Your task to perform on an android device: Search for Mexican restaurants on Maps Image 0: 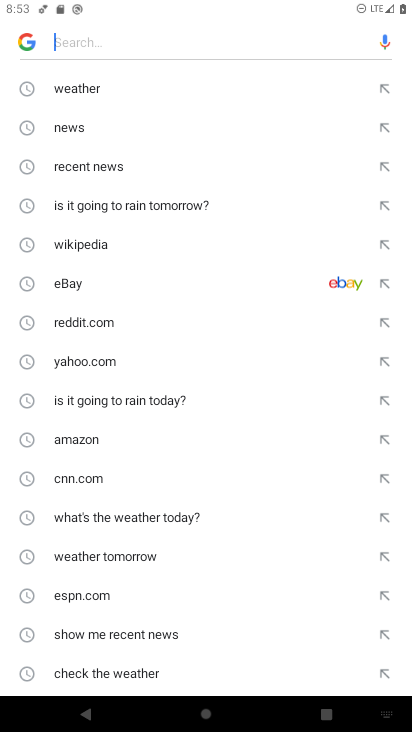
Step 0: press home button
Your task to perform on an android device: Search for Mexican restaurants on Maps Image 1: 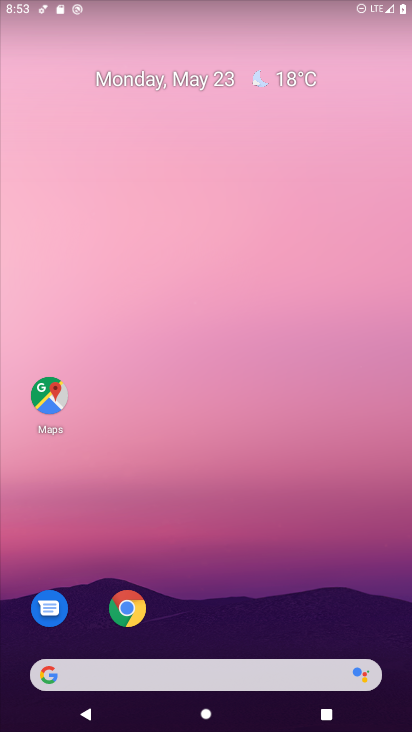
Step 1: drag from (223, 726) to (219, 32)
Your task to perform on an android device: Search for Mexican restaurants on Maps Image 2: 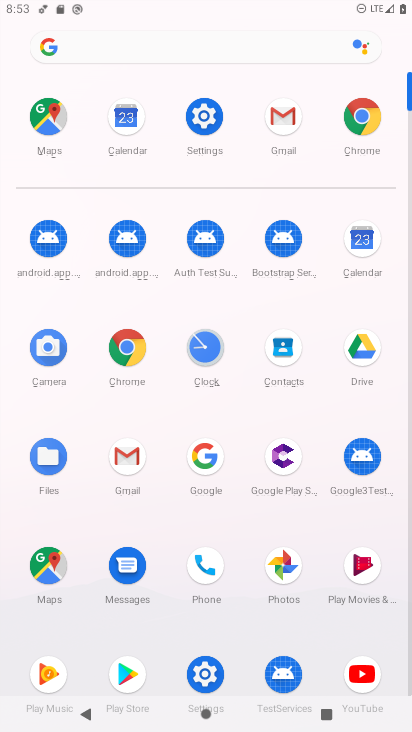
Step 2: click (45, 565)
Your task to perform on an android device: Search for Mexican restaurants on Maps Image 3: 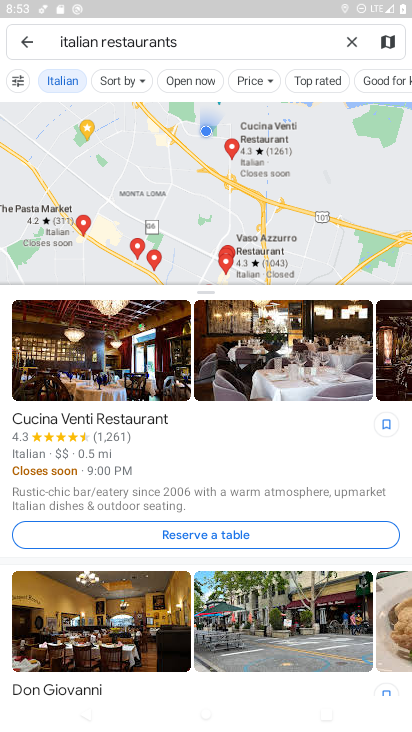
Step 3: click (351, 39)
Your task to perform on an android device: Search for Mexican restaurants on Maps Image 4: 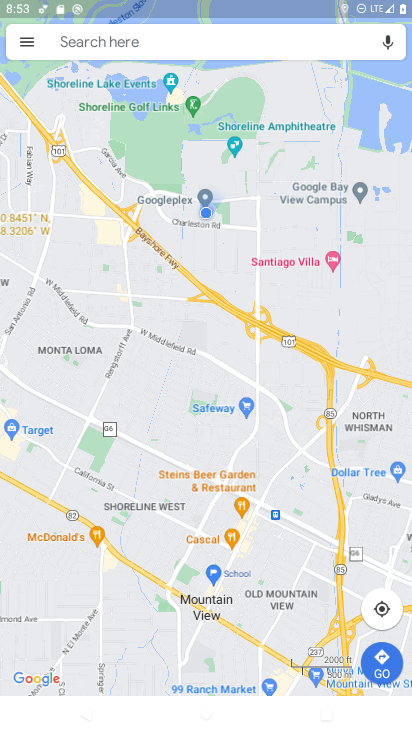
Step 4: click (146, 48)
Your task to perform on an android device: Search for Mexican restaurants on Maps Image 5: 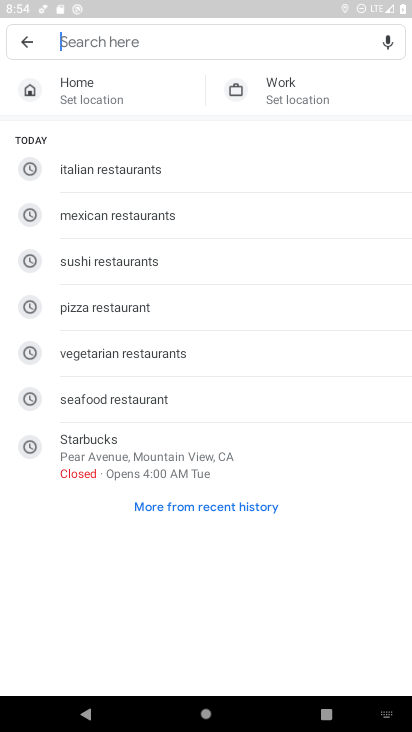
Step 5: type "Mexican restaurants"
Your task to perform on an android device: Search for Mexican restaurants on Maps Image 6: 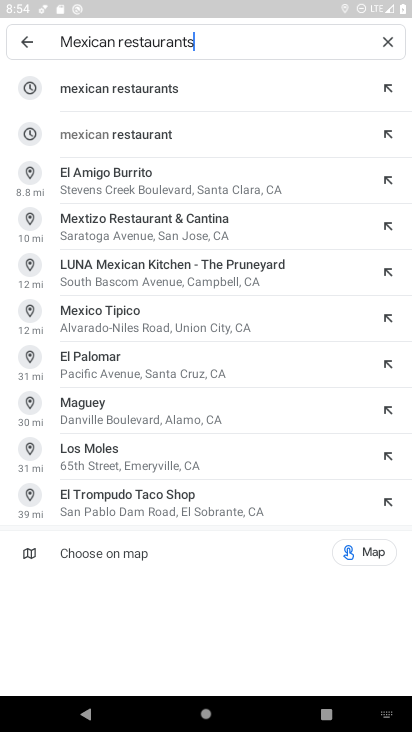
Step 6: click (130, 87)
Your task to perform on an android device: Search for Mexican restaurants on Maps Image 7: 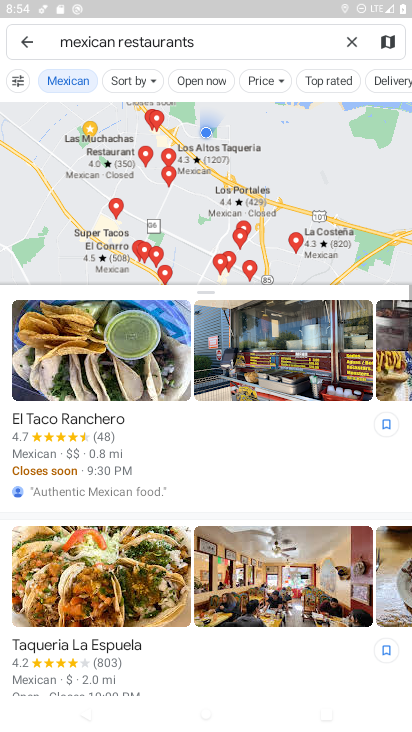
Step 7: task complete